Your task to perform on an android device: Show me the alarms in the clock app Image 0: 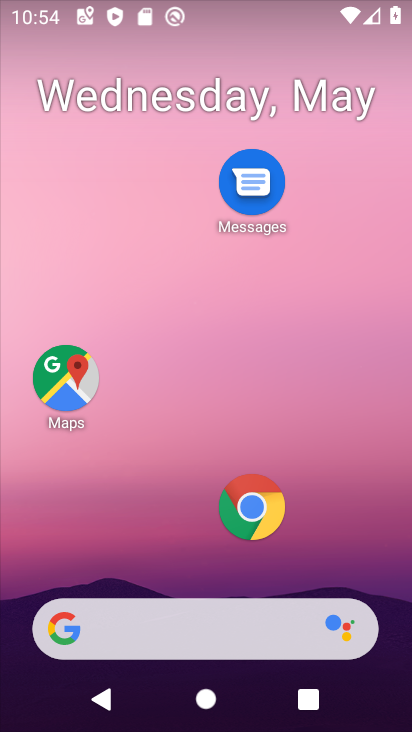
Step 0: press home button
Your task to perform on an android device: Show me the alarms in the clock app Image 1: 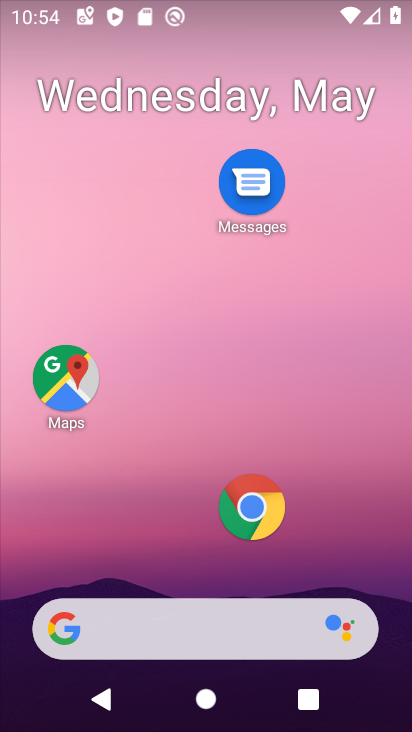
Step 1: drag from (169, 579) to (156, 0)
Your task to perform on an android device: Show me the alarms in the clock app Image 2: 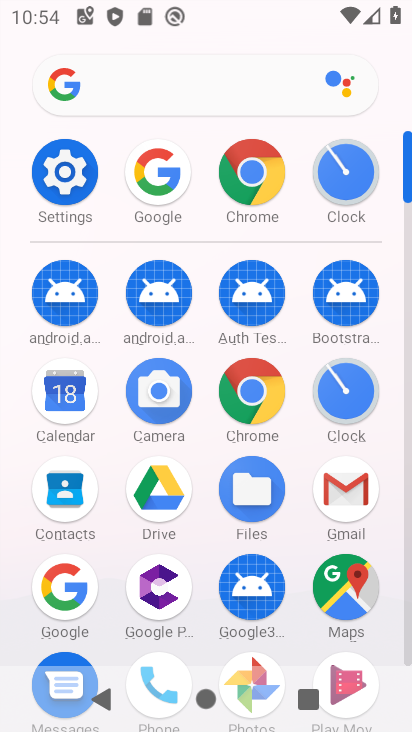
Step 2: click (345, 384)
Your task to perform on an android device: Show me the alarms in the clock app Image 3: 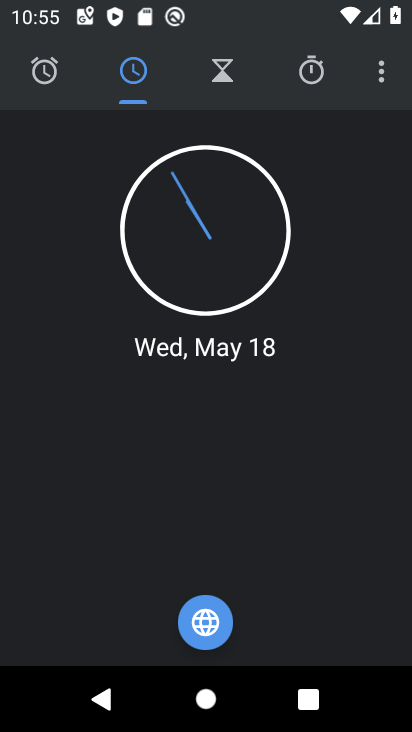
Step 3: click (45, 70)
Your task to perform on an android device: Show me the alarms in the clock app Image 4: 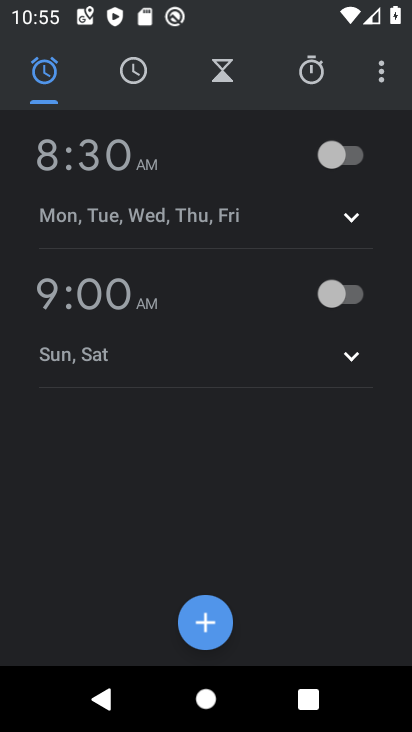
Step 4: click (103, 155)
Your task to perform on an android device: Show me the alarms in the clock app Image 5: 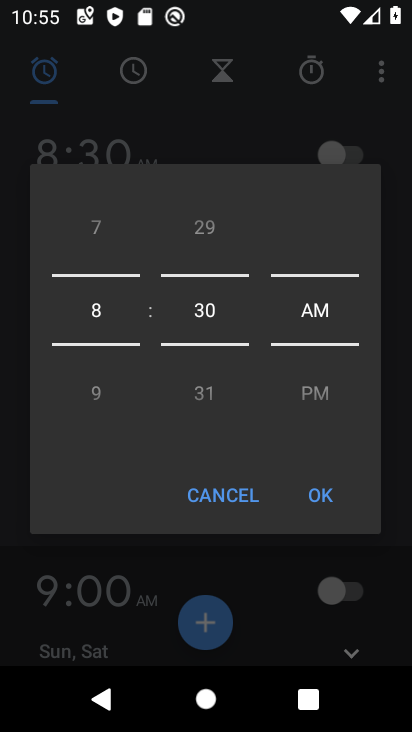
Step 5: click (308, 497)
Your task to perform on an android device: Show me the alarms in the clock app Image 6: 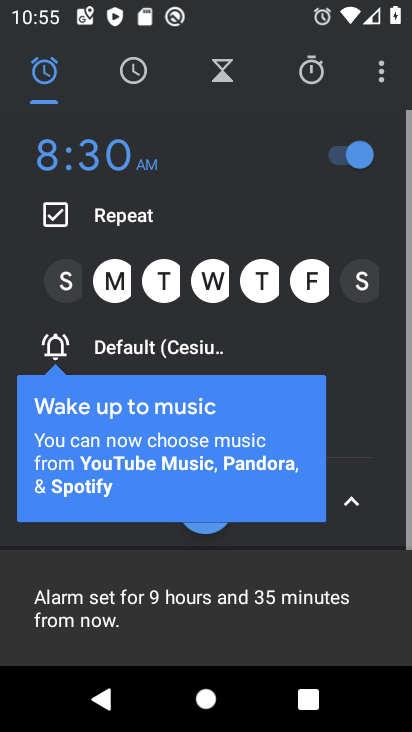
Step 6: task complete